Your task to perform on an android device: turn on location history Image 0: 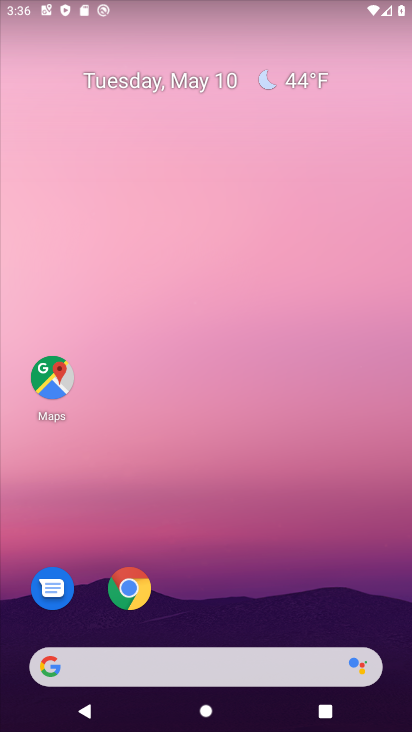
Step 0: drag from (286, 589) to (270, 26)
Your task to perform on an android device: turn on location history Image 1: 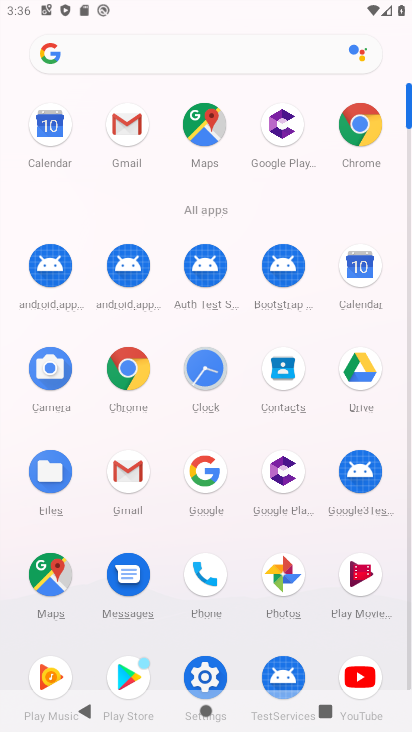
Step 1: drag from (234, 221) to (253, 43)
Your task to perform on an android device: turn on location history Image 2: 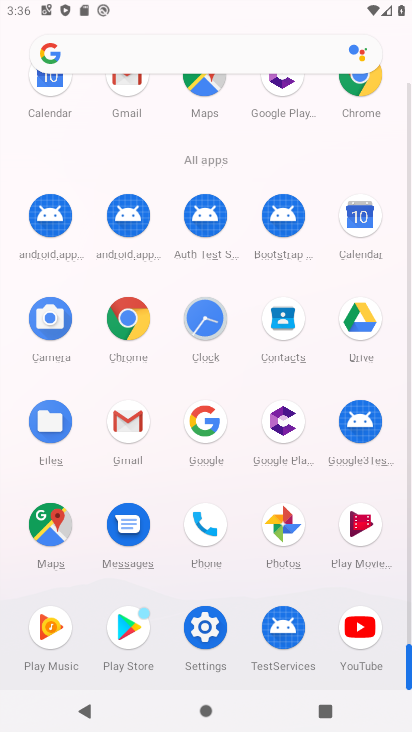
Step 2: click (206, 644)
Your task to perform on an android device: turn on location history Image 3: 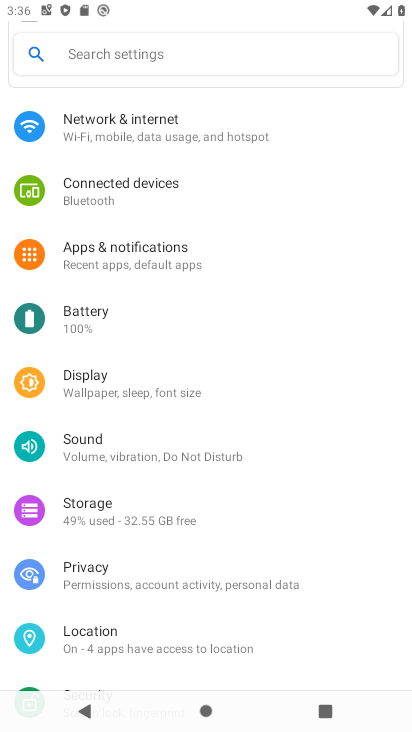
Step 3: click (130, 639)
Your task to perform on an android device: turn on location history Image 4: 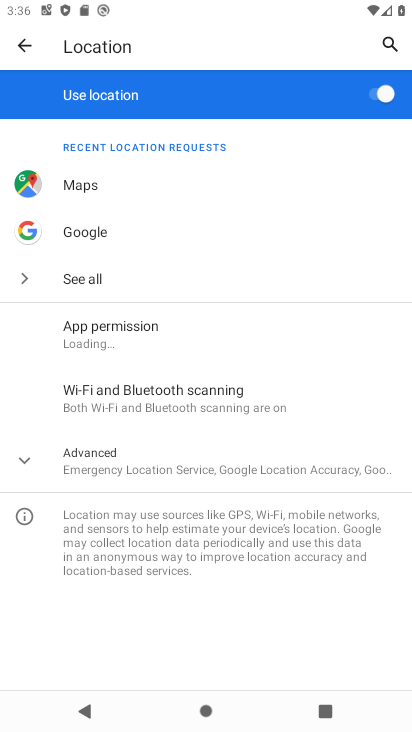
Step 4: click (140, 454)
Your task to perform on an android device: turn on location history Image 5: 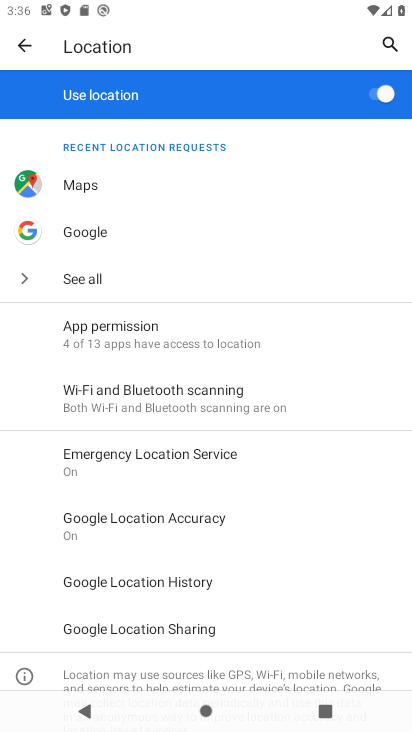
Step 5: click (199, 588)
Your task to perform on an android device: turn on location history Image 6: 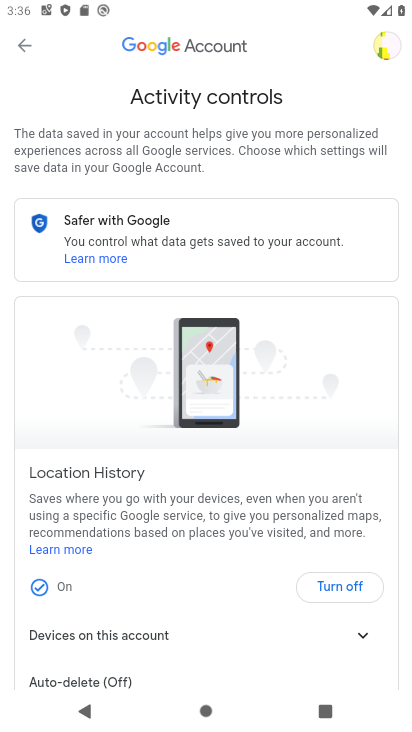
Step 6: task complete